Your task to perform on an android device: What's the weather today? Image 0: 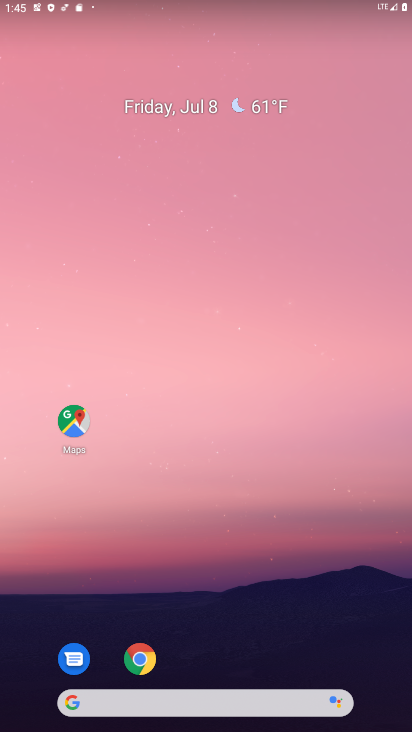
Step 0: drag from (197, 576) to (198, 204)
Your task to perform on an android device: What's the weather today? Image 1: 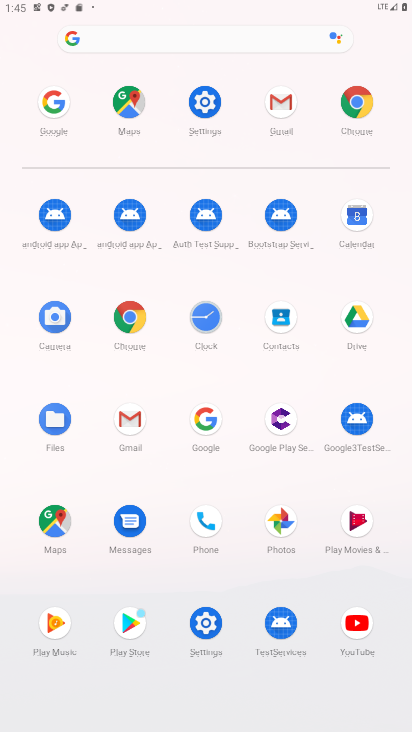
Step 1: click (209, 426)
Your task to perform on an android device: What's the weather today? Image 2: 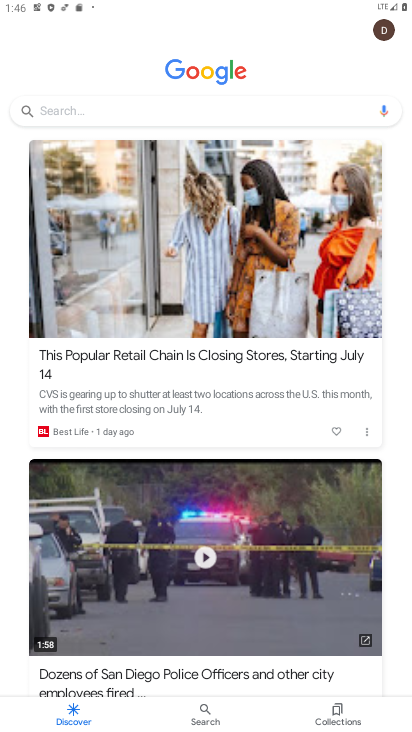
Step 2: click (109, 106)
Your task to perform on an android device: What's the weather today? Image 3: 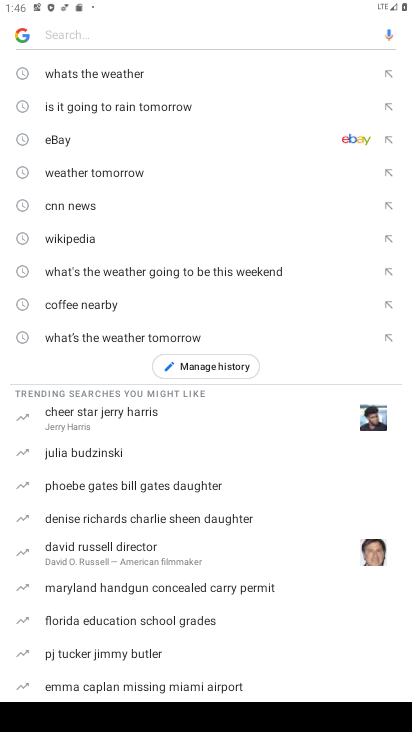
Step 3: click (60, 71)
Your task to perform on an android device: What's the weather today? Image 4: 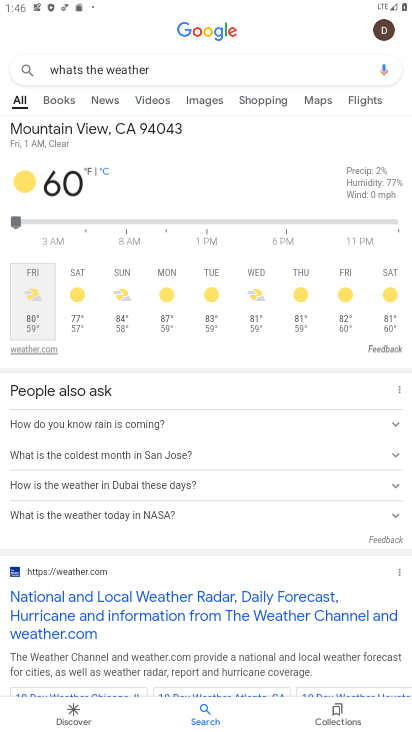
Step 4: task complete